Your task to perform on an android device: open a new tab in the chrome app Image 0: 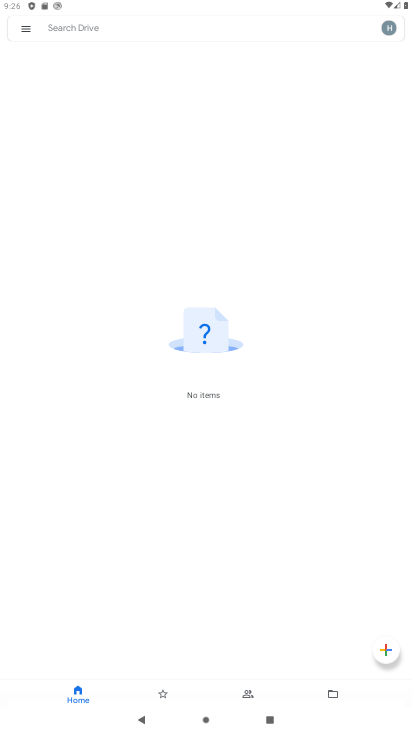
Step 0: press home button
Your task to perform on an android device: open a new tab in the chrome app Image 1: 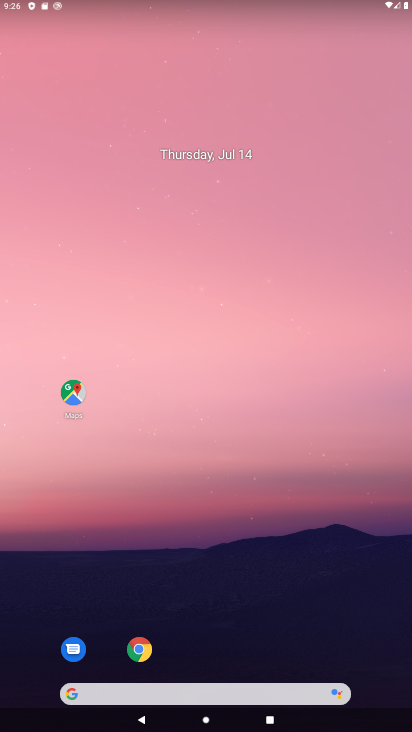
Step 1: drag from (208, 630) to (256, 6)
Your task to perform on an android device: open a new tab in the chrome app Image 2: 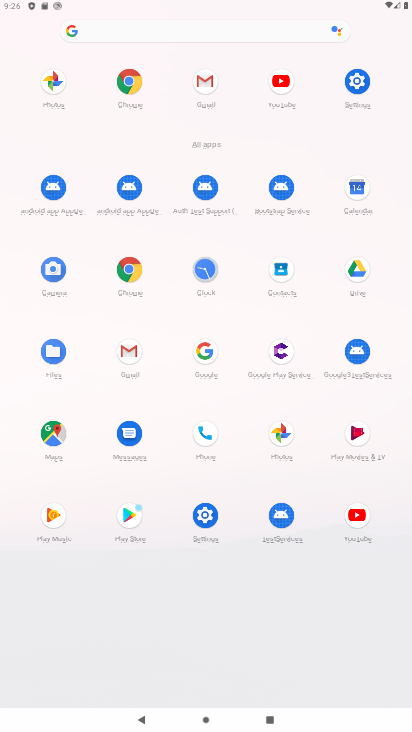
Step 2: click (127, 90)
Your task to perform on an android device: open a new tab in the chrome app Image 3: 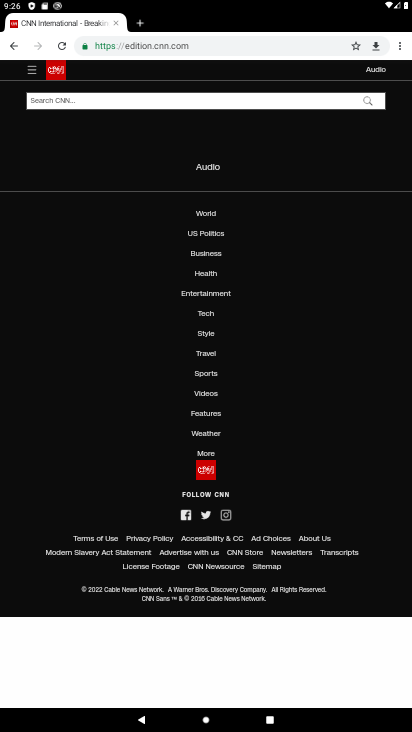
Step 3: click (401, 46)
Your task to perform on an android device: open a new tab in the chrome app Image 4: 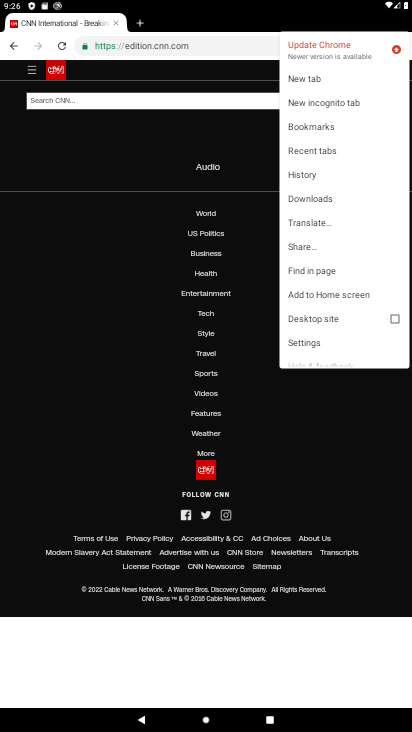
Step 4: click (316, 72)
Your task to perform on an android device: open a new tab in the chrome app Image 5: 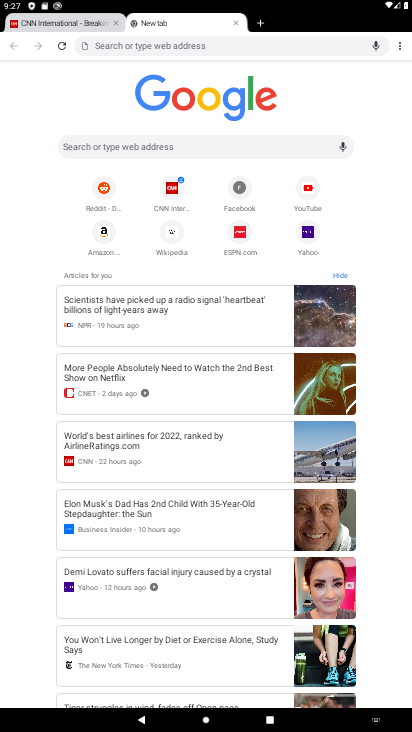
Step 5: task complete